Your task to perform on an android device: allow notifications from all sites in the chrome app Image 0: 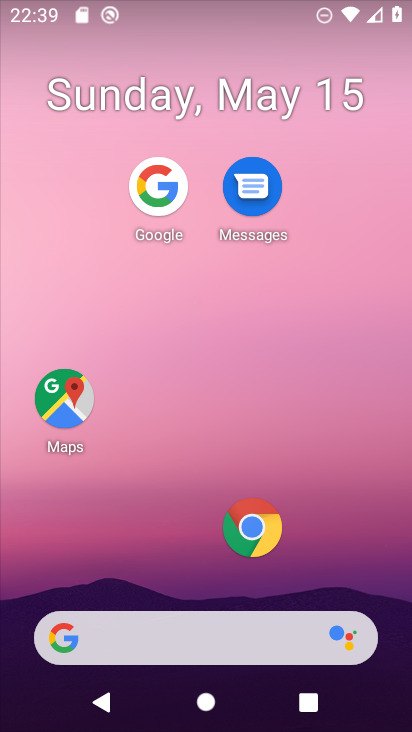
Step 0: drag from (148, 593) to (234, 244)
Your task to perform on an android device: allow notifications from all sites in the chrome app Image 1: 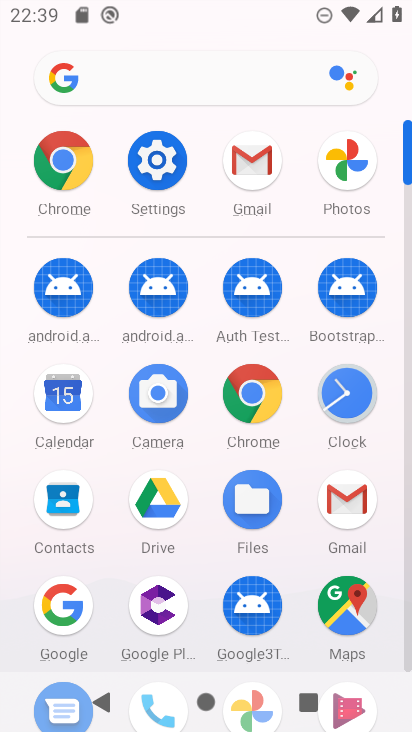
Step 1: click (66, 173)
Your task to perform on an android device: allow notifications from all sites in the chrome app Image 2: 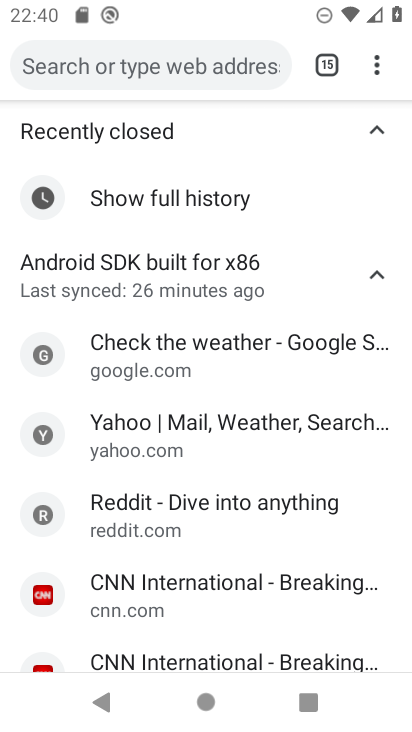
Step 2: drag from (379, 65) to (201, 552)
Your task to perform on an android device: allow notifications from all sites in the chrome app Image 3: 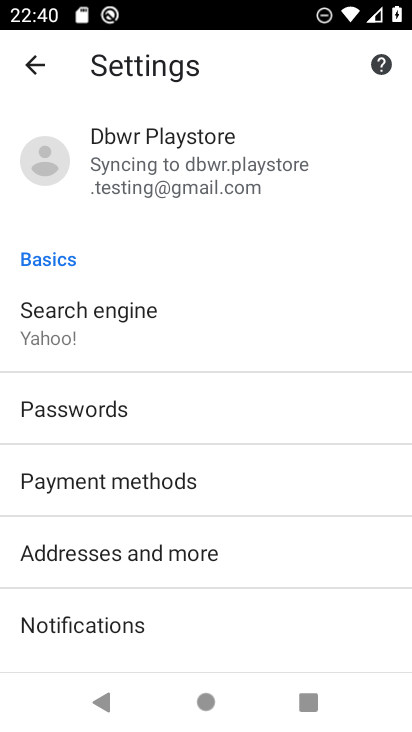
Step 3: drag from (199, 613) to (324, 272)
Your task to perform on an android device: allow notifications from all sites in the chrome app Image 4: 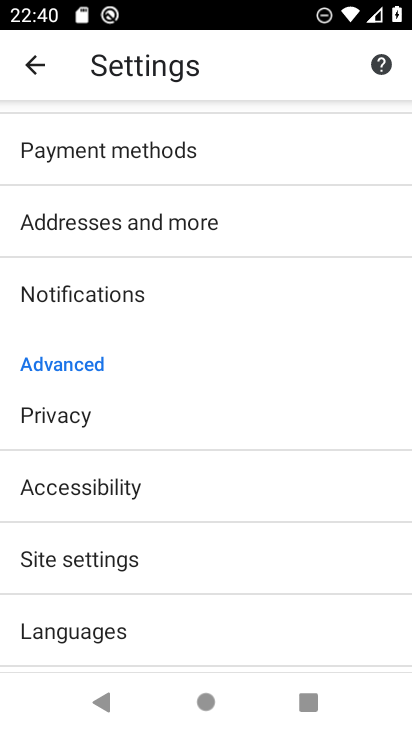
Step 4: click (104, 566)
Your task to perform on an android device: allow notifications from all sites in the chrome app Image 5: 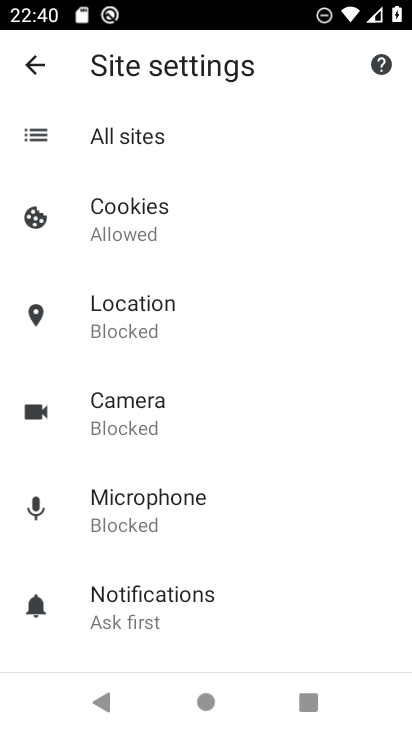
Step 5: click (178, 599)
Your task to perform on an android device: allow notifications from all sites in the chrome app Image 6: 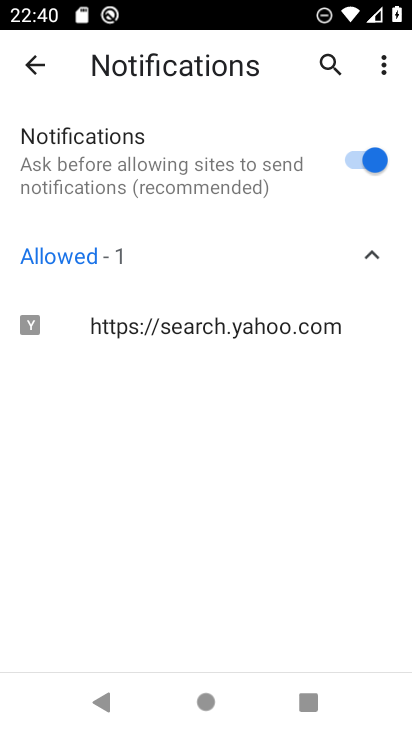
Step 6: task complete